Your task to perform on an android device: see tabs open on other devices in the chrome app Image 0: 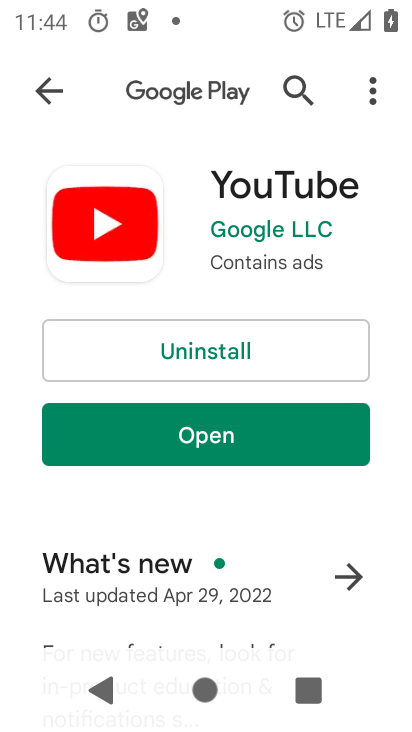
Step 0: press home button
Your task to perform on an android device: see tabs open on other devices in the chrome app Image 1: 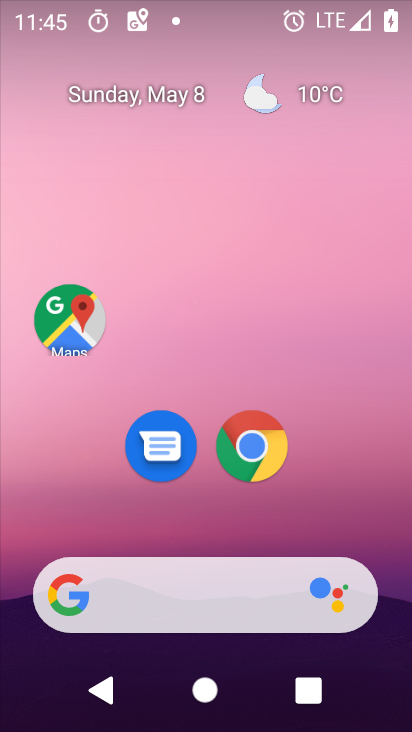
Step 1: click (277, 436)
Your task to perform on an android device: see tabs open on other devices in the chrome app Image 2: 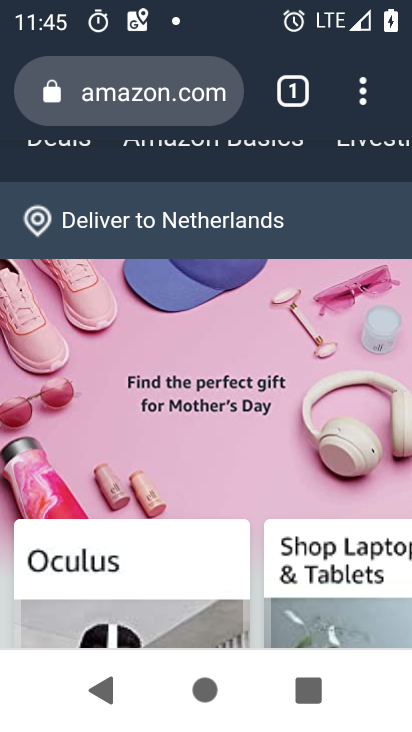
Step 2: task complete